Your task to perform on an android device: Go to settings Image 0: 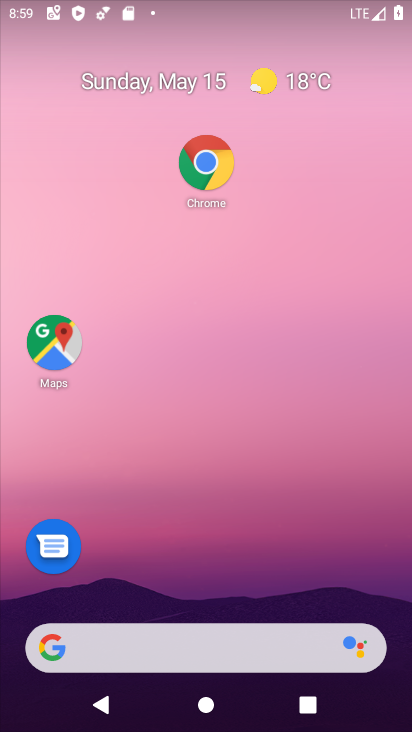
Step 0: drag from (307, 598) to (301, 138)
Your task to perform on an android device: Go to settings Image 1: 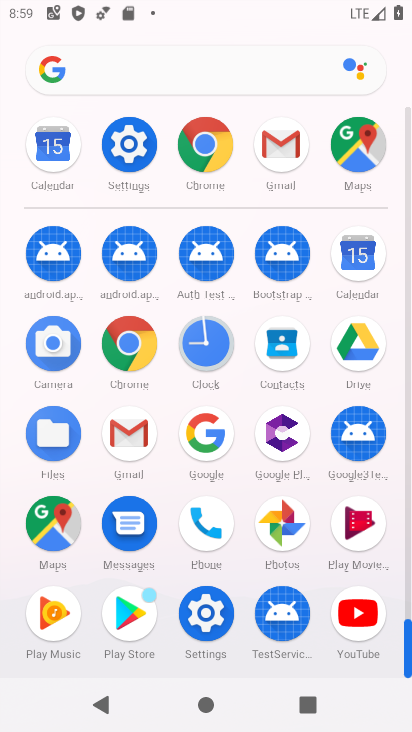
Step 1: click (129, 138)
Your task to perform on an android device: Go to settings Image 2: 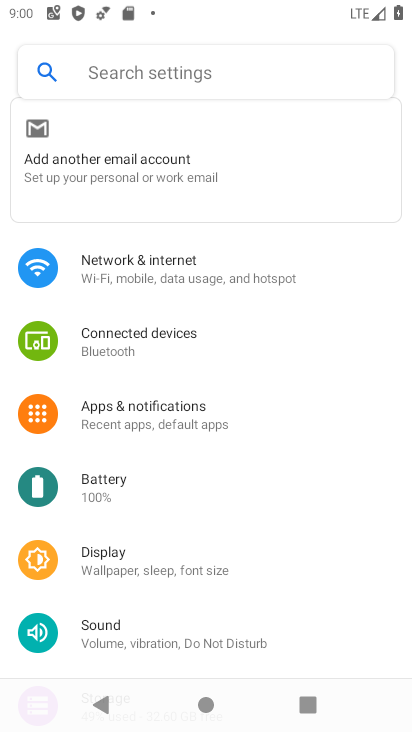
Step 2: task complete